Your task to perform on an android device: open wifi settings Image 0: 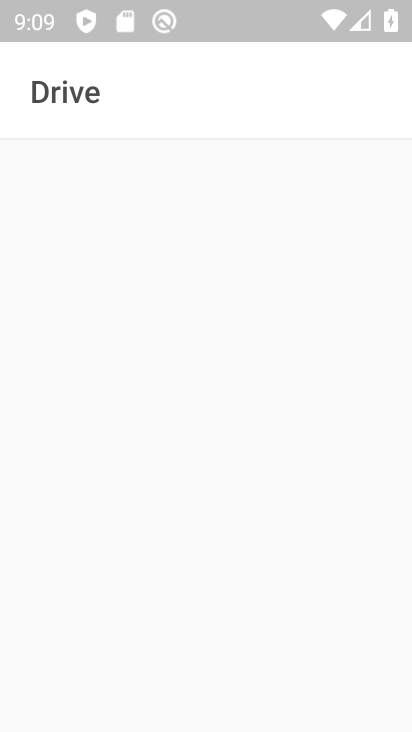
Step 0: press home button
Your task to perform on an android device: open wifi settings Image 1: 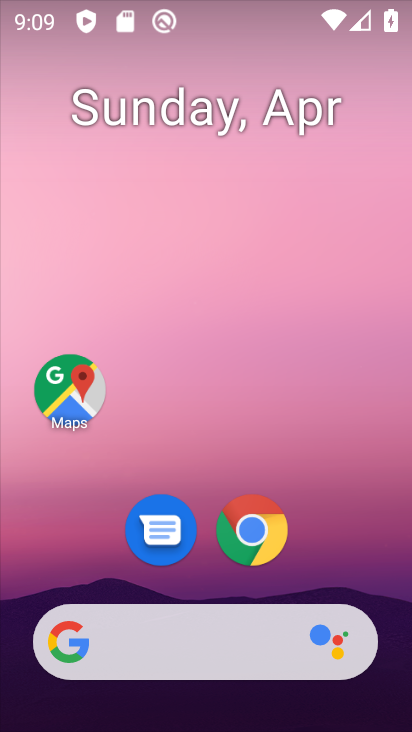
Step 1: drag from (347, 529) to (367, 12)
Your task to perform on an android device: open wifi settings Image 2: 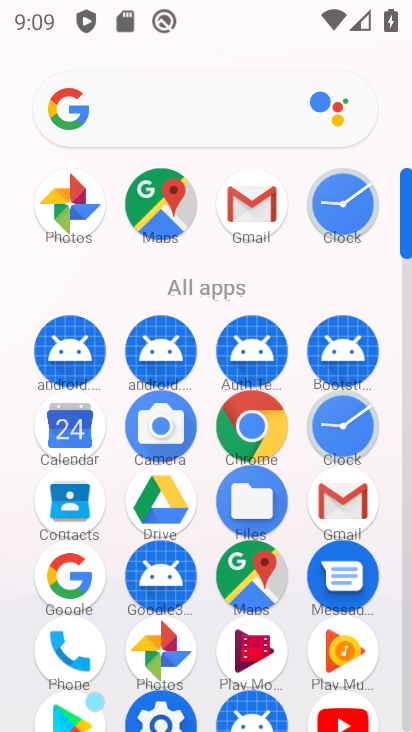
Step 2: drag from (406, 463) to (406, 407)
Your task to perform on an android device: open wifi settings Image 3: 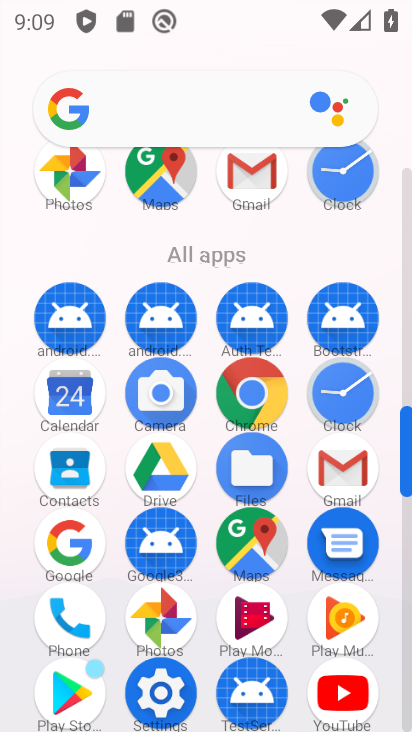
Step 3: click (173, 696)
Your task to perform on an android device: open wifi settings Image 4: 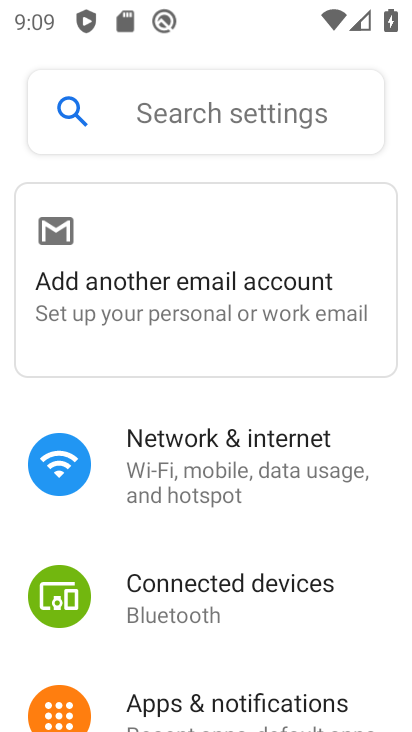
Step 4: click (232, 466)
Your task to perform on an android device: open wifi settings Image 5: 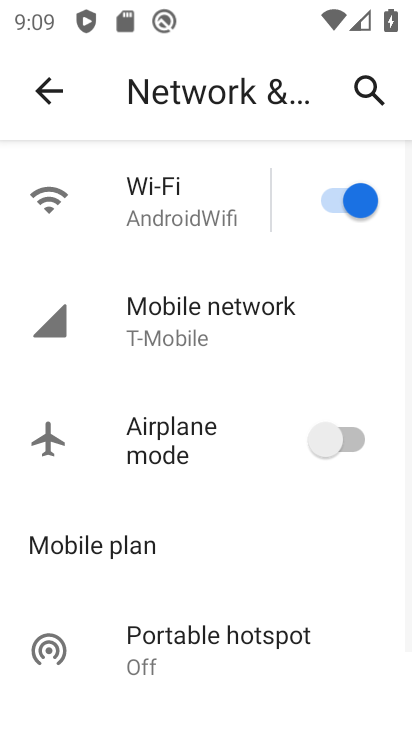
Step 5: click (133, 224)
Your task to perform on an android device: open wifi settings Image 6: 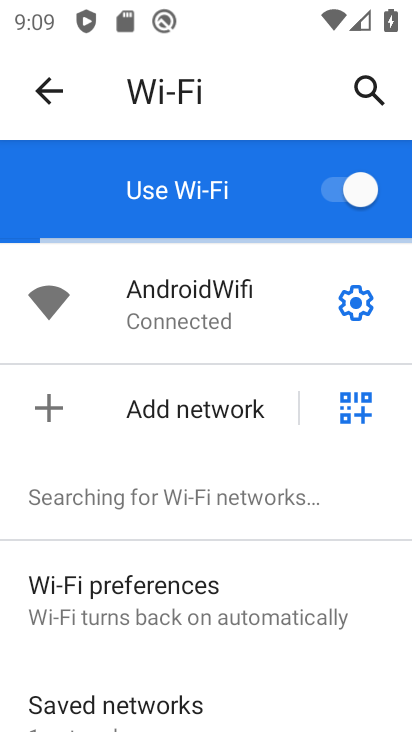
Step 6: task complete